Your task to perform on an android device: turn on translation in the chrome app Image 0: 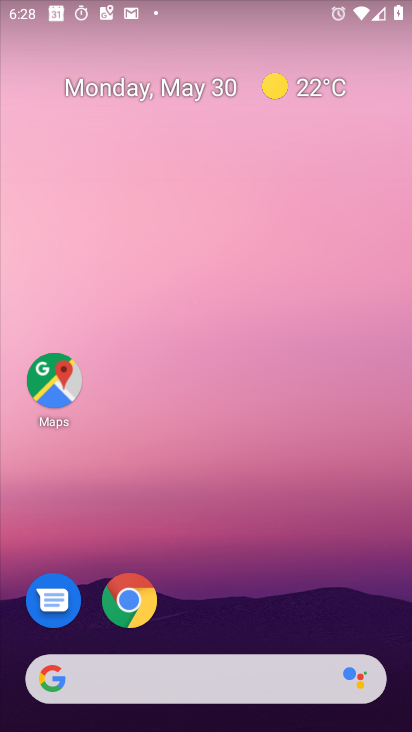
Step 0: click (134, 602)
Your task to perform on an android device: turn on translation in the chrome app Image 1: 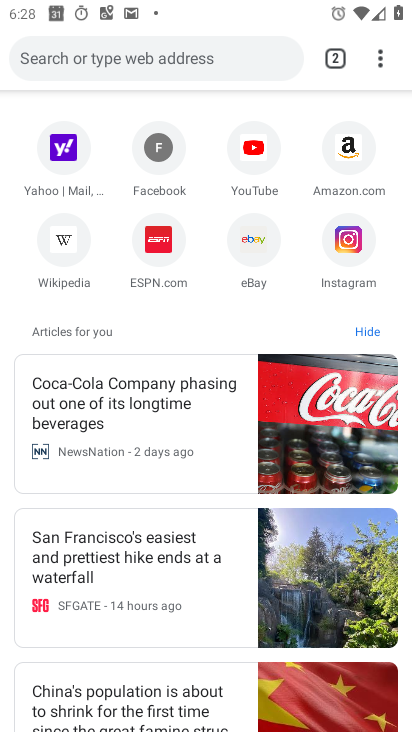
Step 1: drag from (382, 65) to (163, 495)
Your task to perform on an android device: turn on translation in the chrome app Image 2: 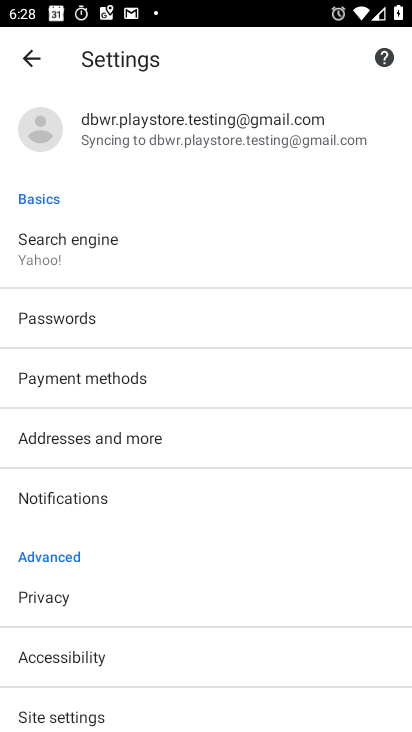
Step 2: drag from (218, 663) to (286, 365)
Your task to perform on an android device: turn on translation in the chrome app Image 3: 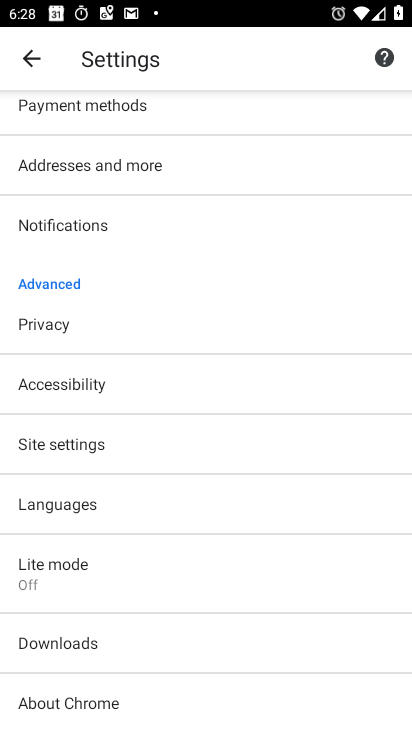
Step 3: click (61, 509)
Your task to perform on an android device: turn on translation in the chrome app Image 4: 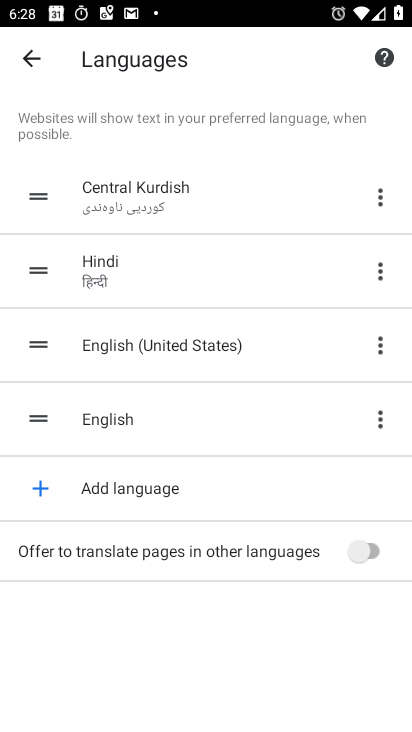
Step 4: click (366, 556)
Your task to perform on an android device: turn on translation in the chrome app Image 5: 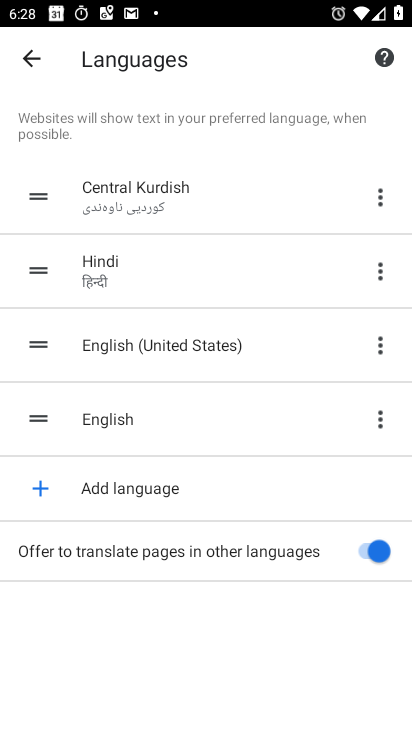
Step 5: task complete